Your task to perform on an android device: Search for "acer predator" on bestbuy, select the first entry, add it to the cart, then select checkout. Image 0: 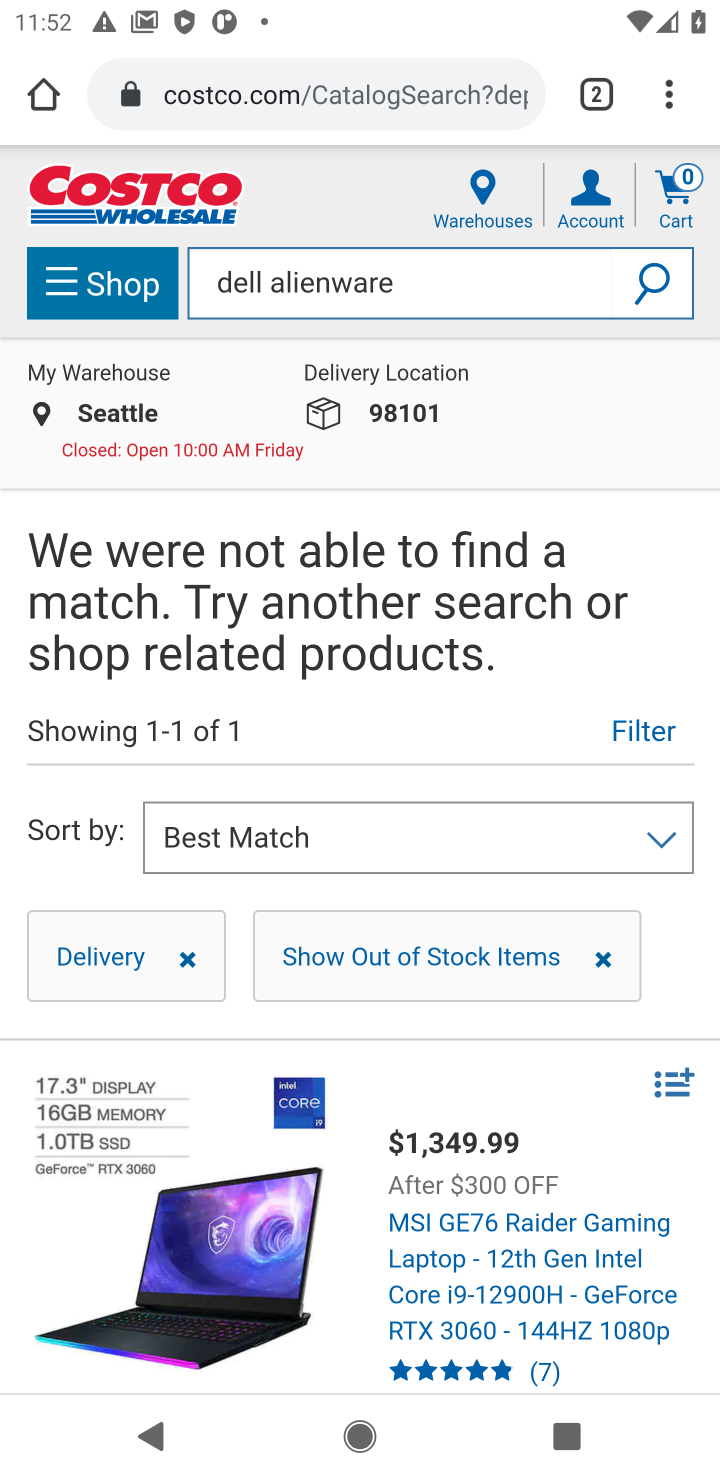
Step 0: click (309, 92)
Your task to perform on an android device: Search for "acer predator" on bestbuy, select the first entry, add it to the cart, then select checkout. Image 1: 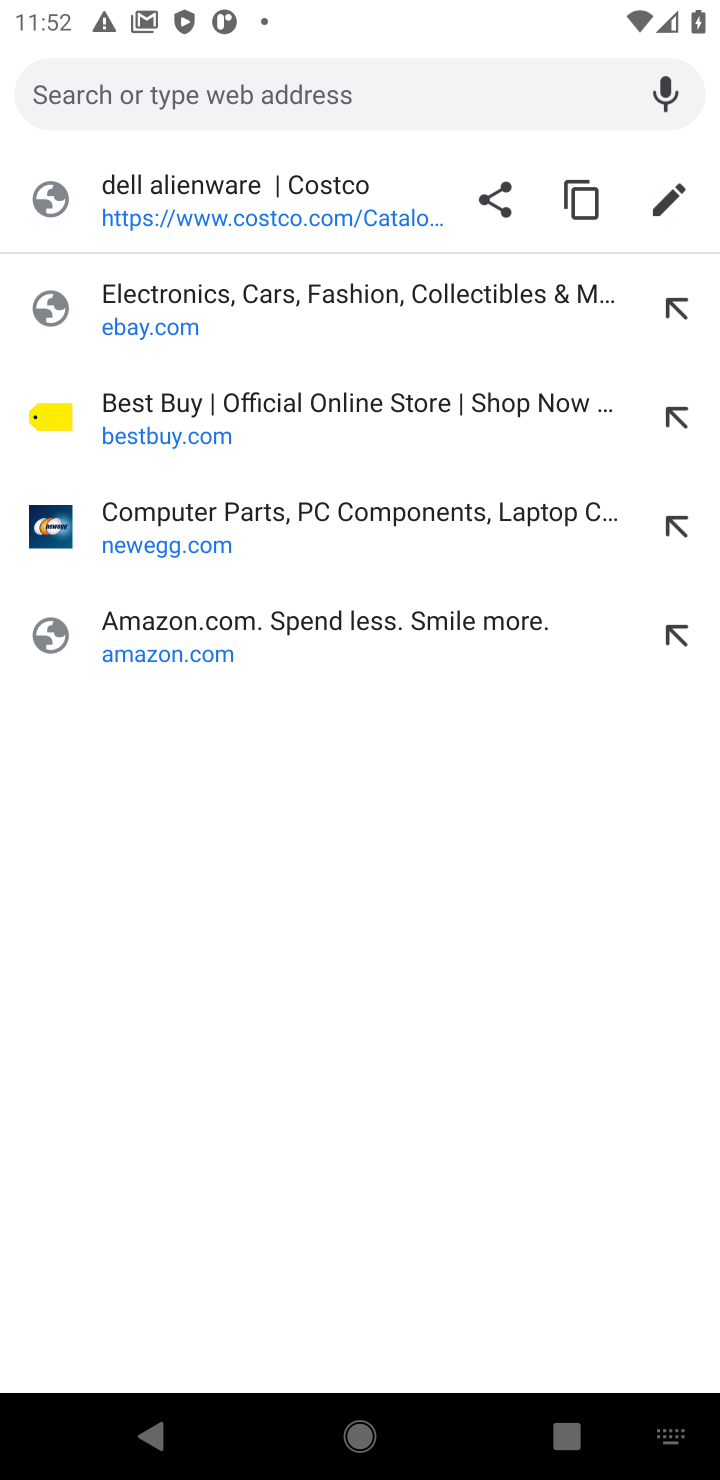
Step 1: click (128, 421)
Your task to perform on an android device: Search for "acer predator" on bestbuy, select the first entry, add it to the cart, then select checkout. Image 2: 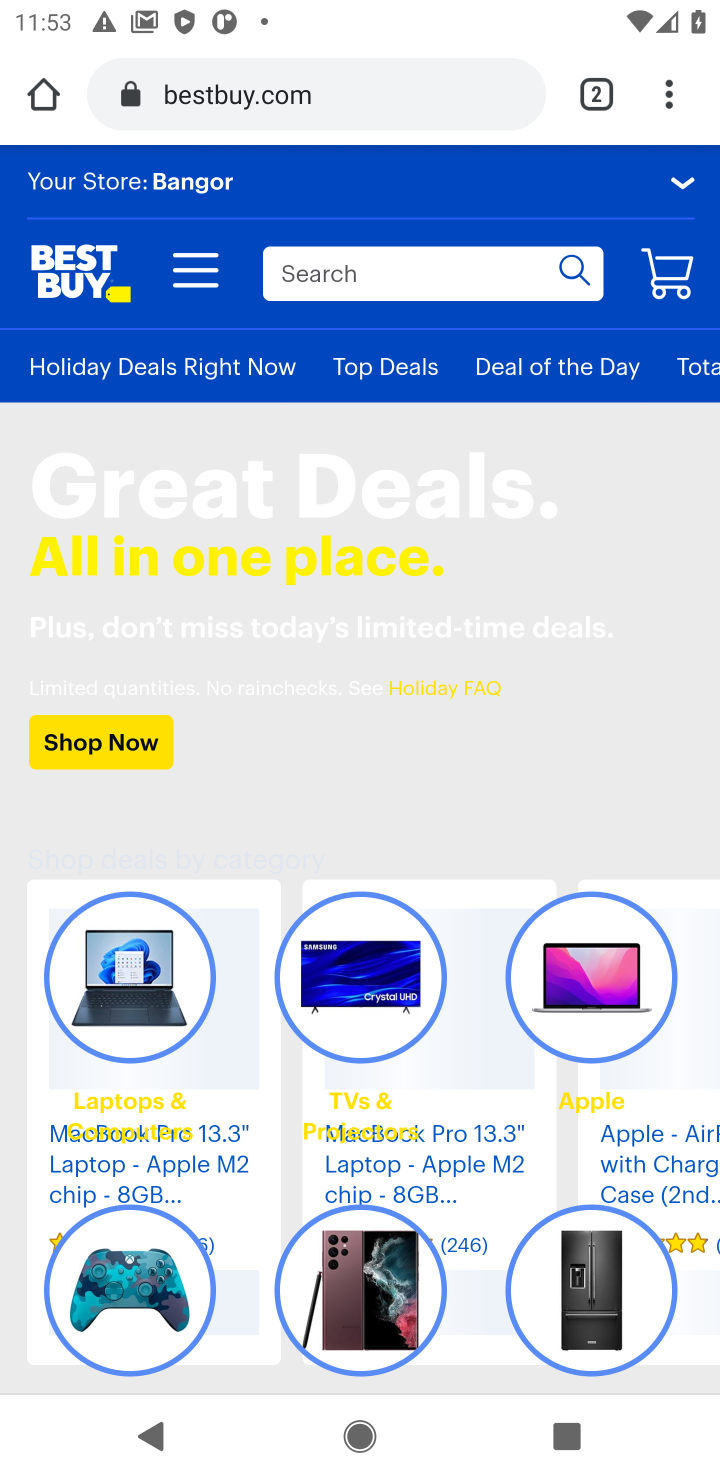
Step 2: click (345, 276)
Your task to perform on an android device: Search for "acer predator" on bestbuy, select the first entry, add it to the cart, then select checkout. Image 3: 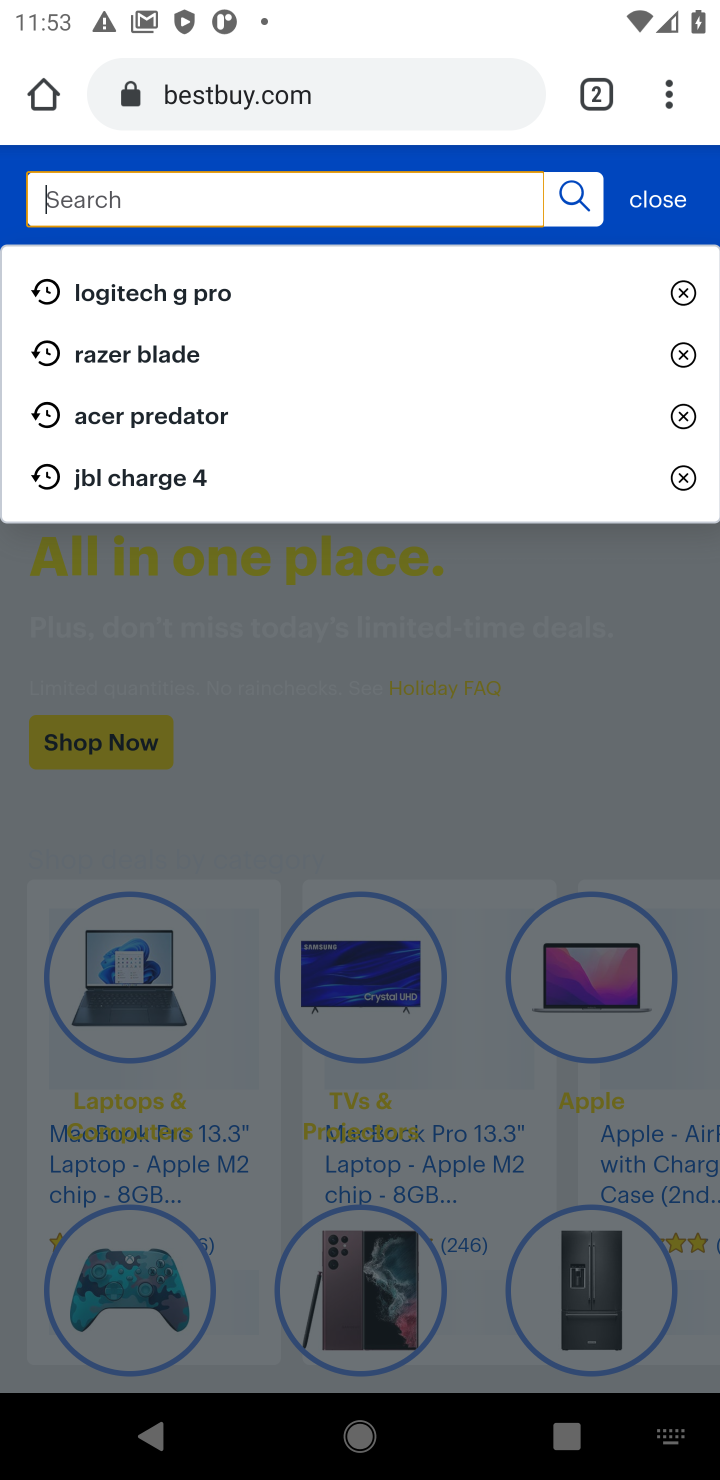
Step 3: type "acer predator"
Your task to perform on an android device: Search for "acer predator" on bestbuy, select the first entry, add it to the cart, then select checkout. Image 4: 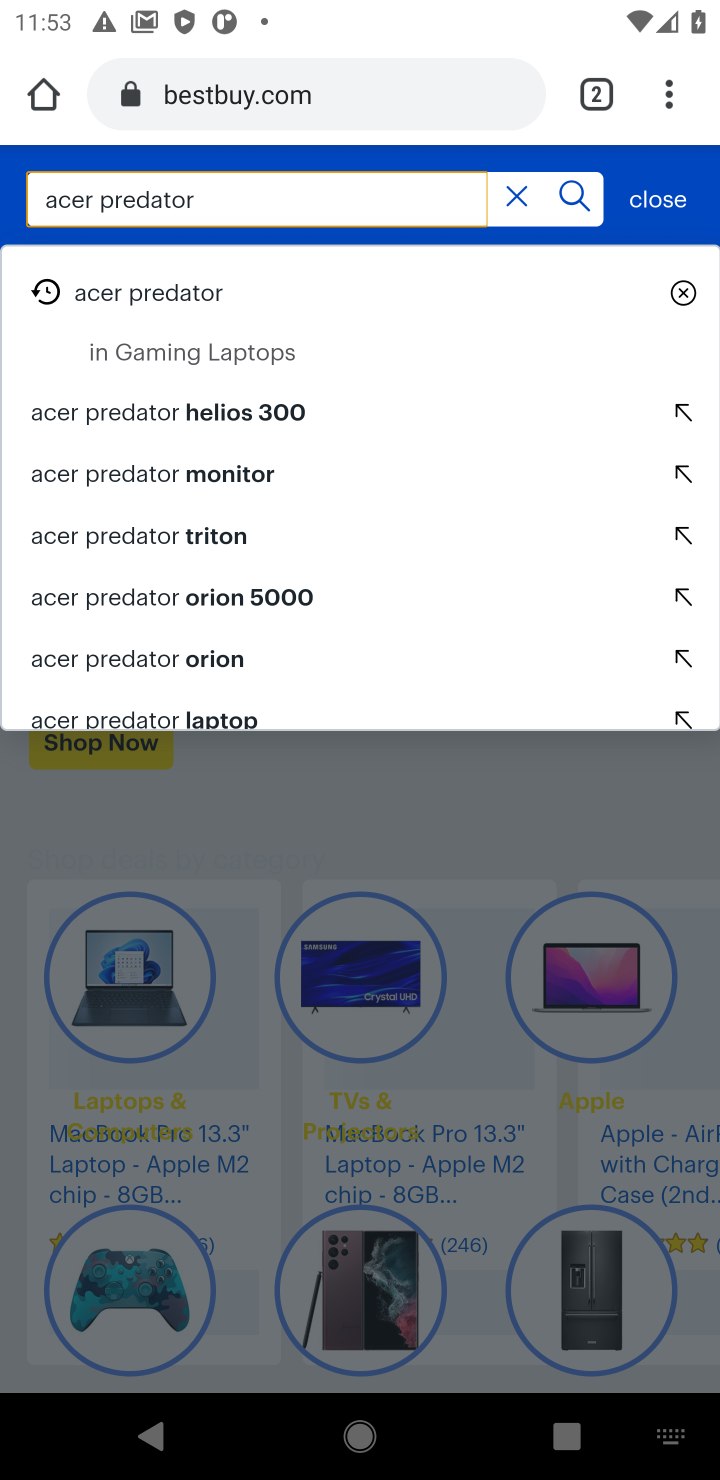
Step 4: click (157, 292)
Your task to perform on an android device: Search for "acer predator" on bestbuy, select the first entry, add it to the cart, then select checkout. Image 5: 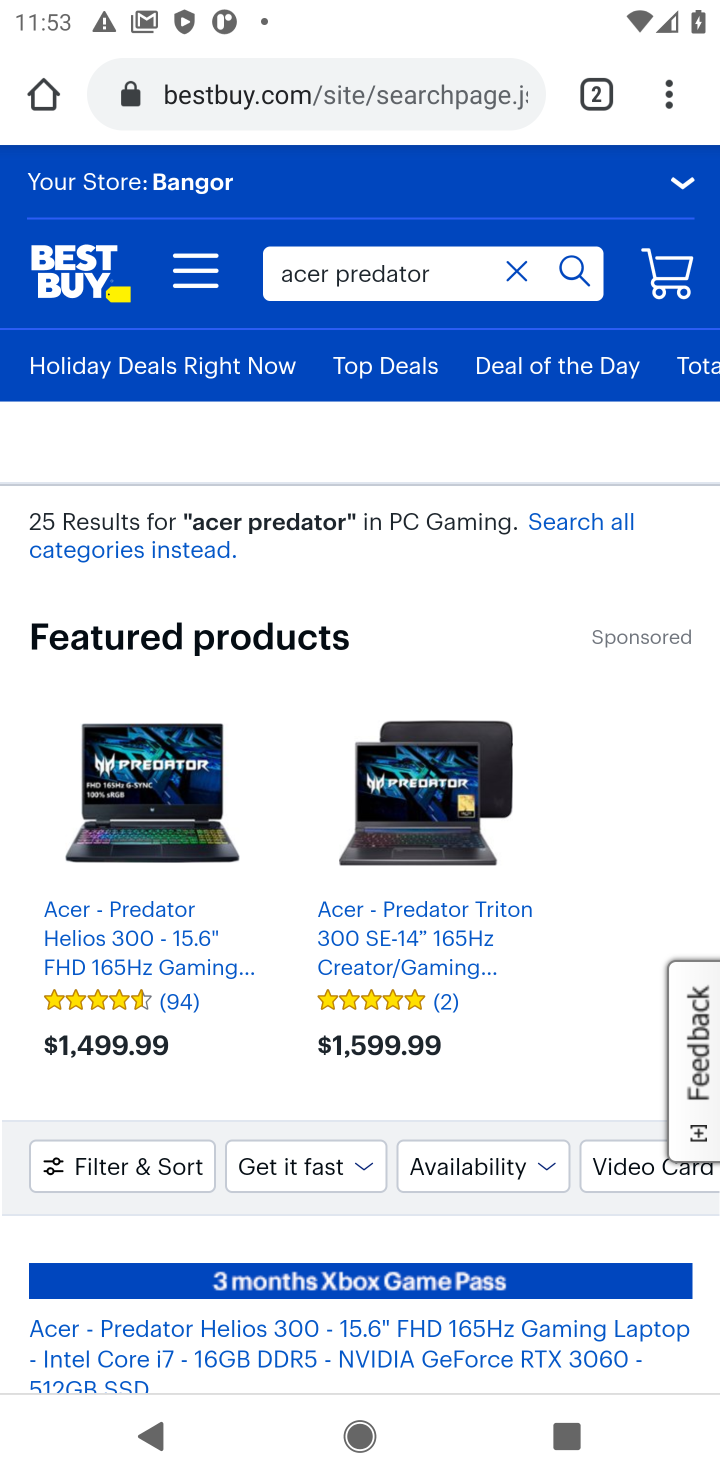
Step 5: drag from (276, 868) to (299, 396)
Your task to perform on an android device: Search for "acer predator" on bestbuy, select the first entry, add it to the cart, then select checkout. Image 6: 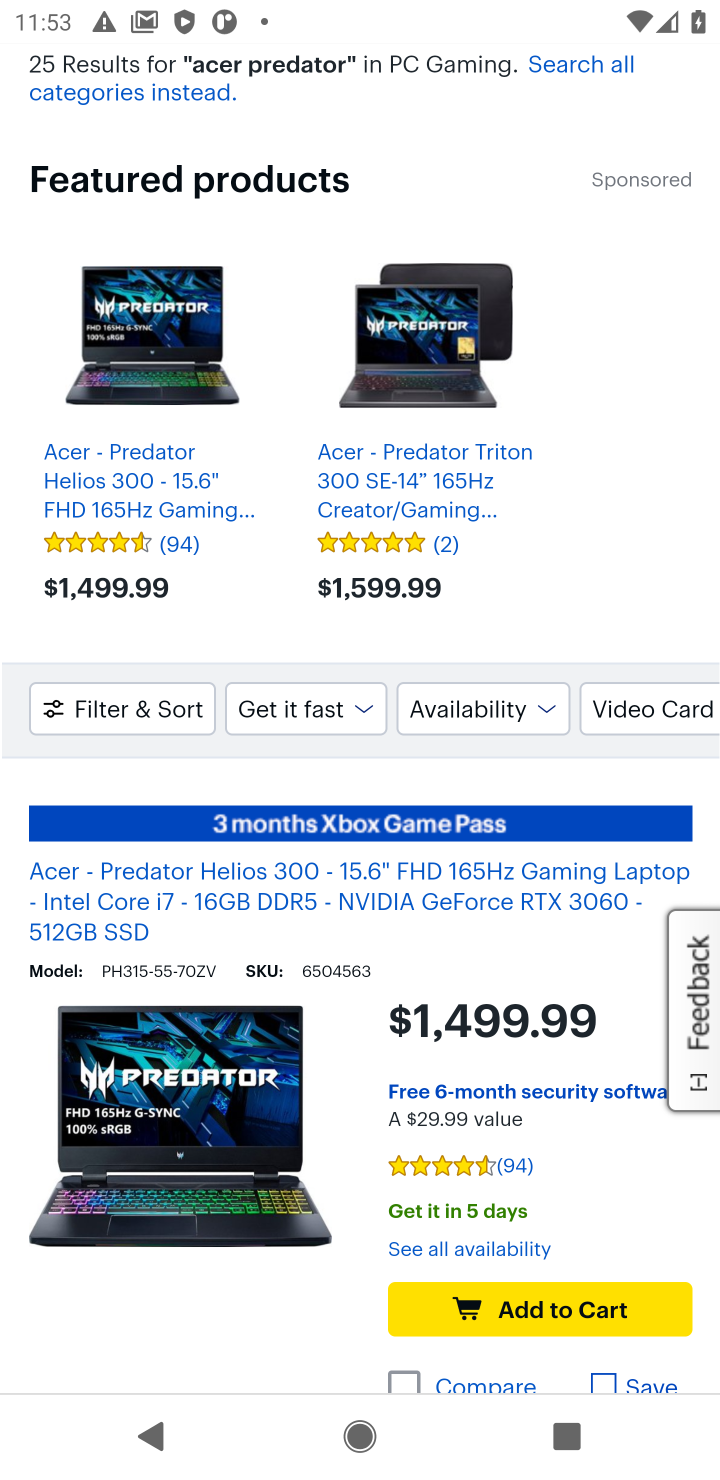
Step 6: drag from (256, 1087) to (276, 716)
Your task to perform on an android device: Search for "acer predator" on bestbuy, select the first entry, add it to the cart, then select checkout. Image 7: 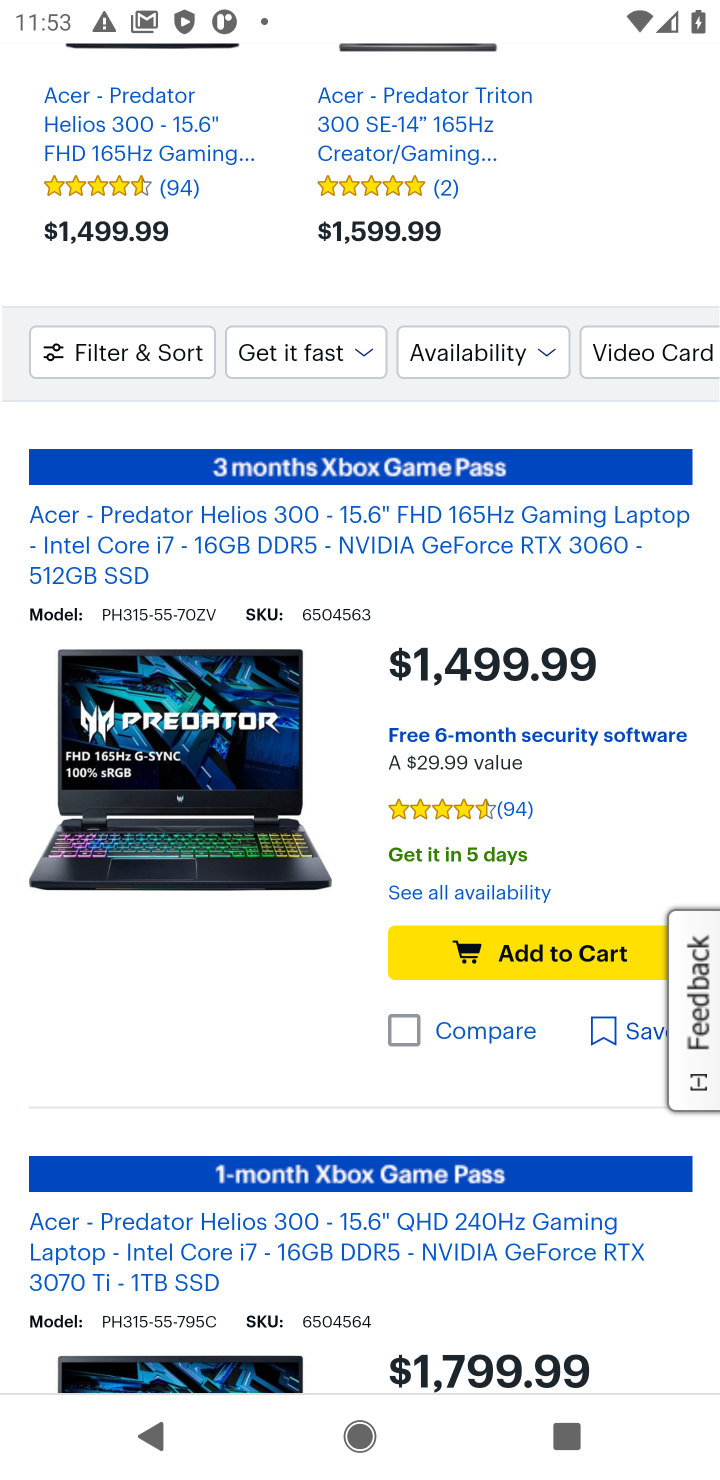
Step 7: click (527, 949)
Your task to perform on an android device: Search for "acer predator" on bestbuy, select the first entry, add it to the cart, then select checkout. Image 8: 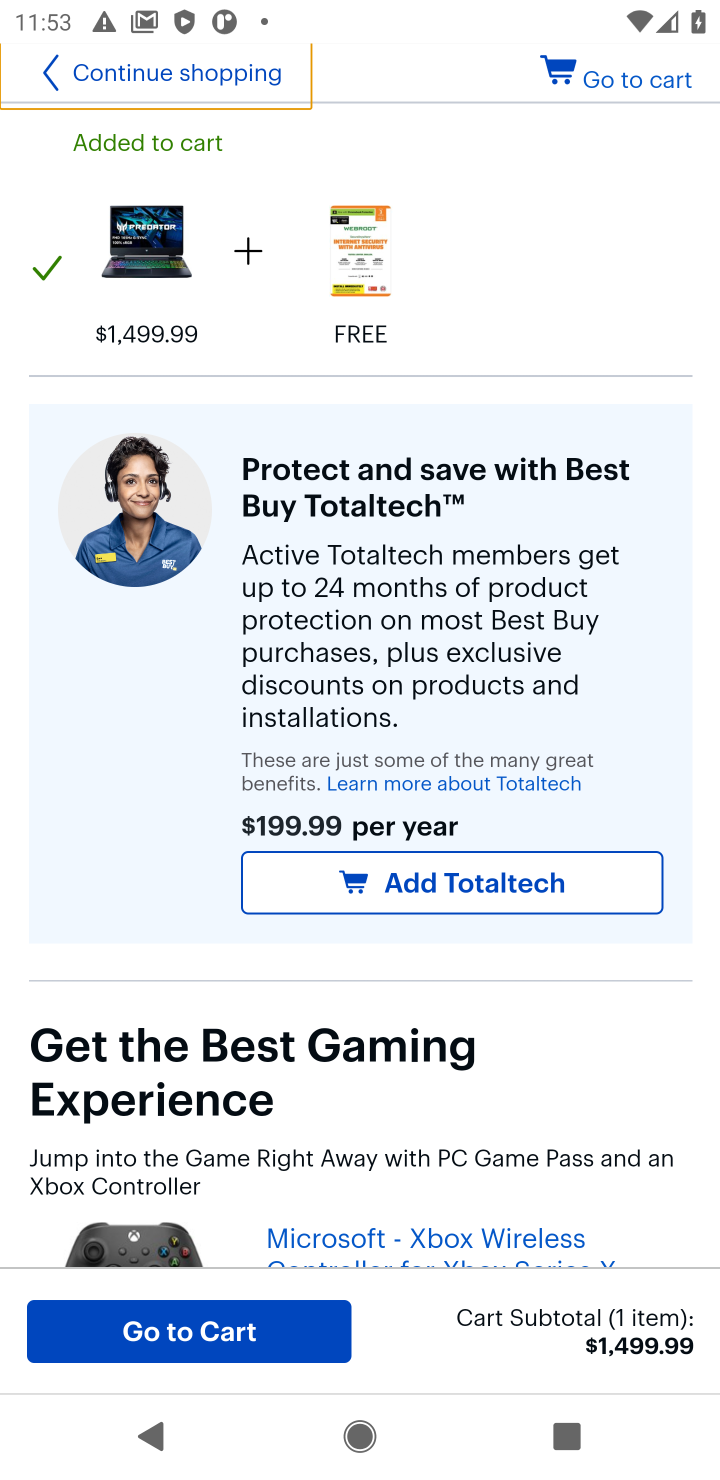
Step 8: click (627, 88)
Your task to perform on an android device: Search for "acer predator" on bestbuy, select the first entry, add it to the cart, then select checkout. Image 9: 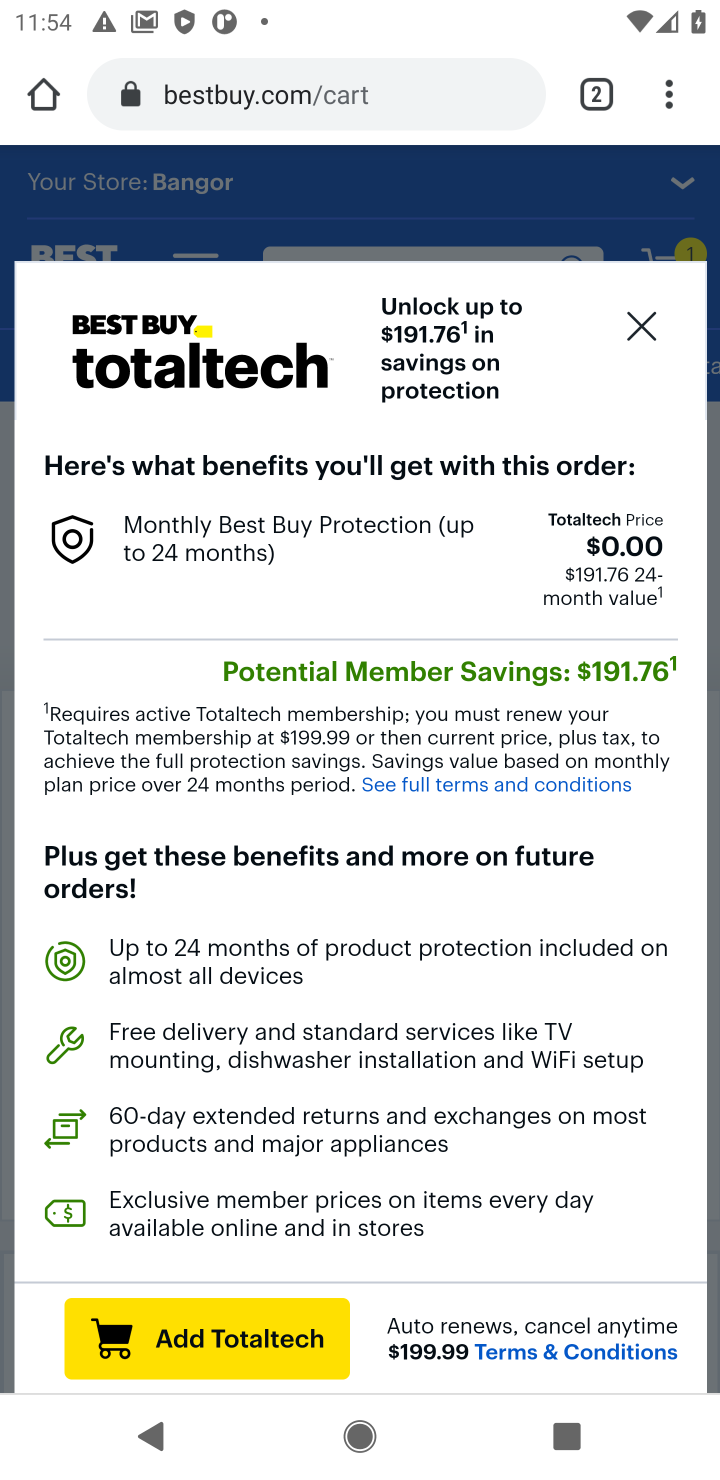
Step 9: click (633, 324)
Your task to perform on an android device: Search for "acer predator" on bestbuy, select the first entry, add it to the cart, then select checkout. Image 10: 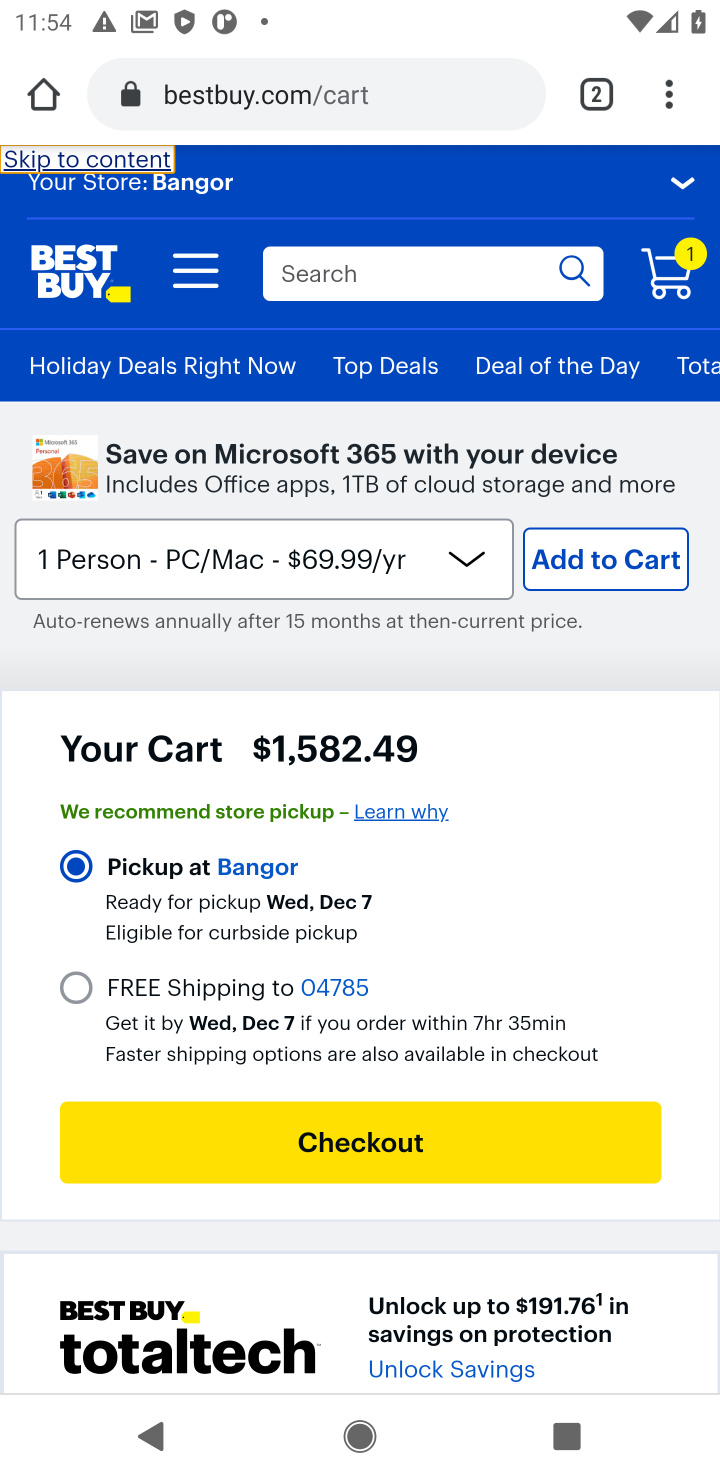
Step 10: click (287, 1148)
Your task to perform on an android device: Search for "acer predator" on bestbuy, select the first entry, add it to the cart, then select checkout. Image 11: 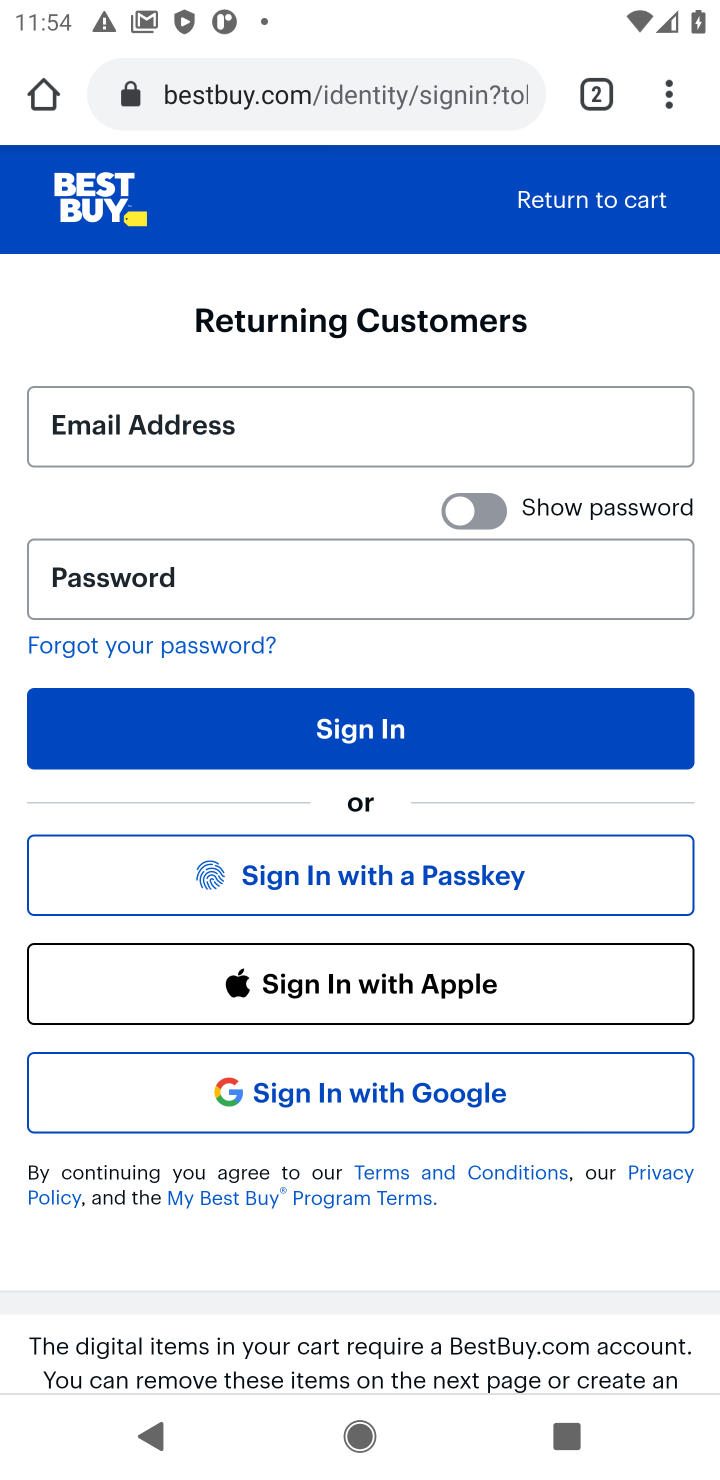
Step 11: task complete